Your task to perform on an android device: move a message to another label in the gmail app Image 0: 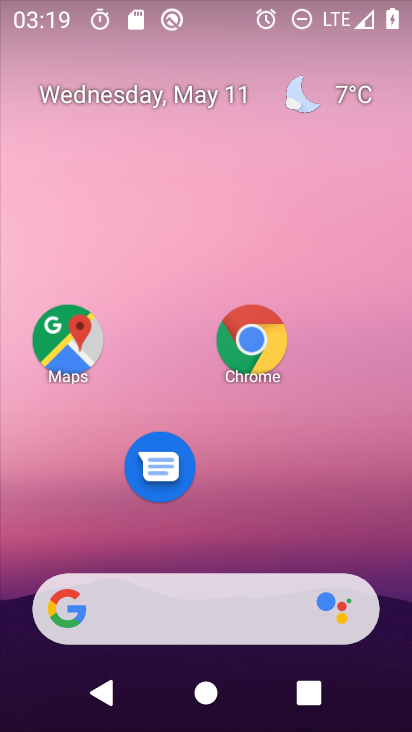
Step 0: drag from (216, 573) to (314, 87)
Your task to perform on an android device: move a message to another label in the gmail app Image 1: 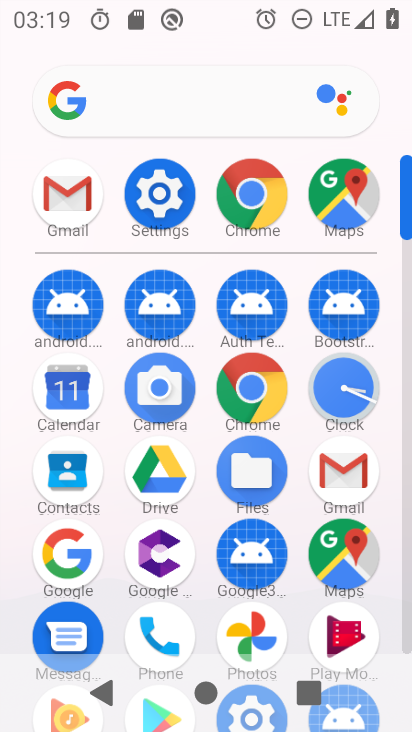
Step 1: click (74, 207)
Your task to perform on an android device: move a message to another label in the gmail app Image 2: 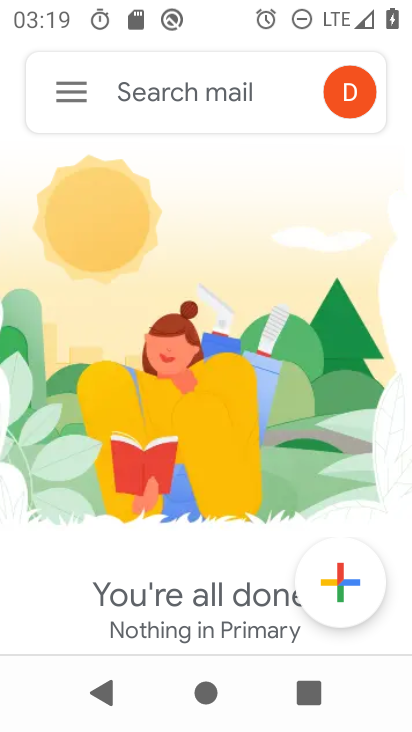
Step 2: task complete